Your task to perform on an android device: toggle priority inbox in the gmail app Image 0: 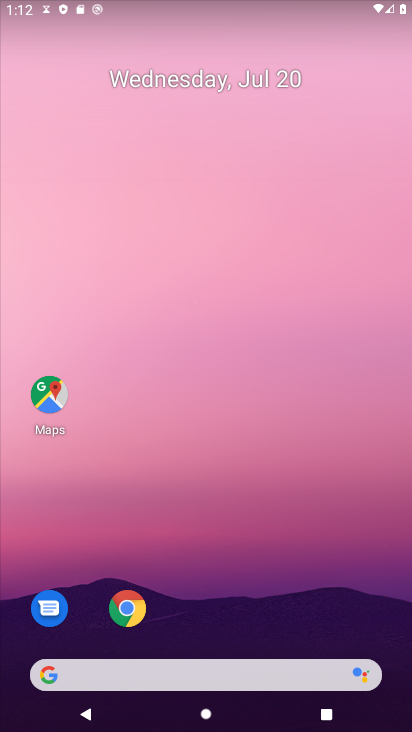
Step 0: drag from (231, 675) to (207, 128)
Your task to perform on an android device: toggle priority inbox in the gmail app Image 1: 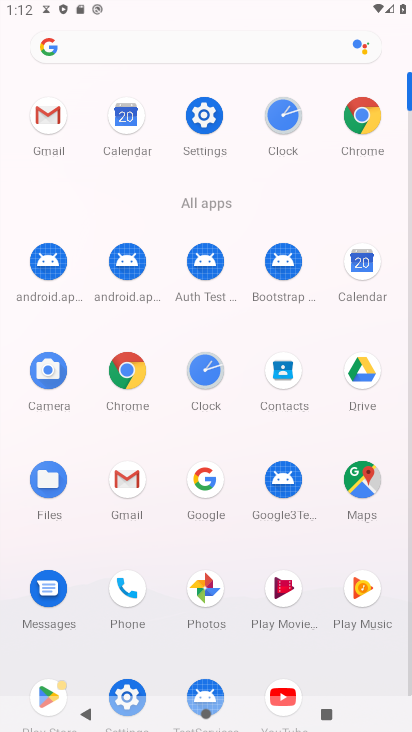
Step 1: click (128, 477)
Your task to perform on an android device: toggle priority inbox in the gmail app Image 2: 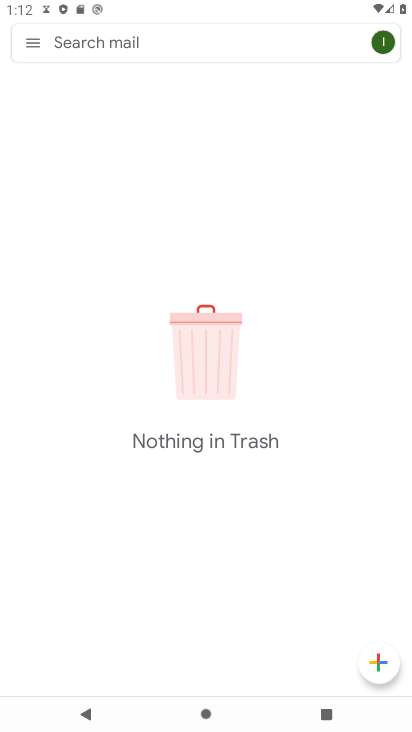
Step 2: click (33, 41)
Your task to perform on an android device: toggle priority inbox in the gmail app Image 3: 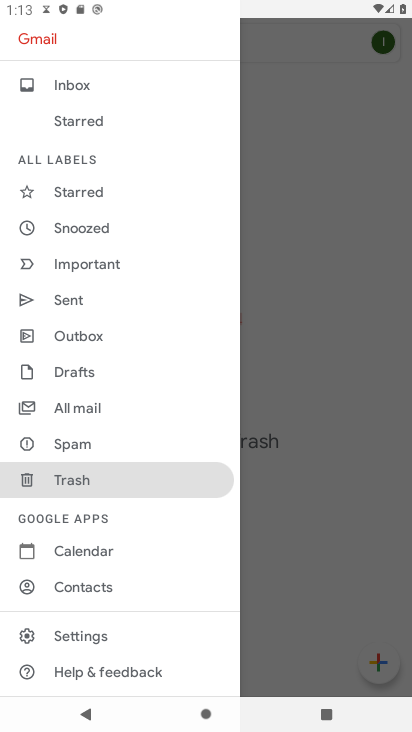
Step 3: click (83, 637)
Your task to perform on an android device: toggle priority inbox in the gmail app Image 4: 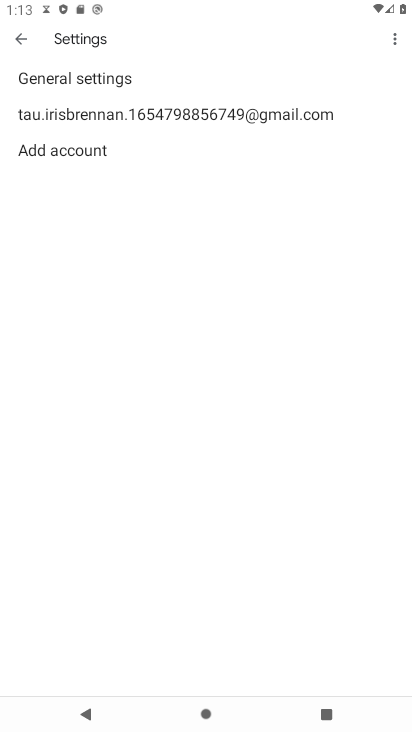
Step 4: click (198, 112)
Your task to perform on an android device: toggle priority inbox in the gmail app Image 5: 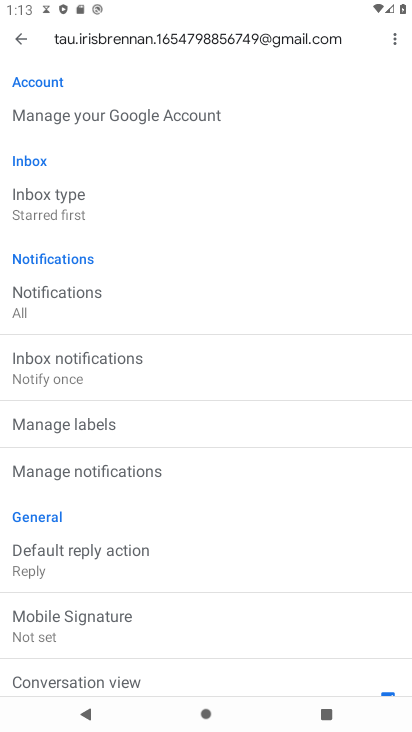
Step 5: click (75, 202)
Your task to perform on an android device: toggle priority inbox in the gmail app Image 6: 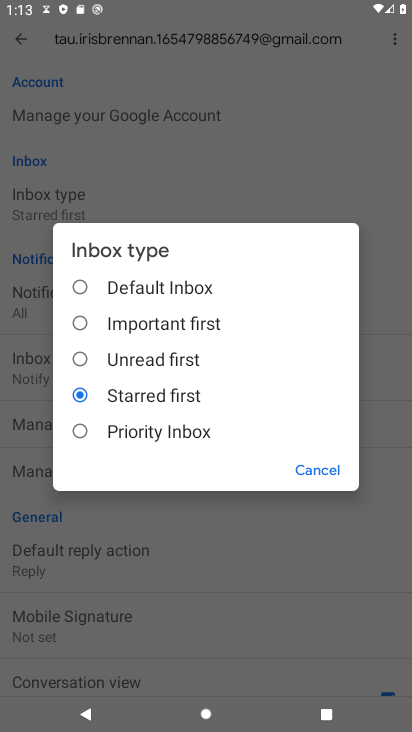
Step 6: click (82, 433)
Your task to perform on an android device: toggle priority inbox in the gmail app Image 7: 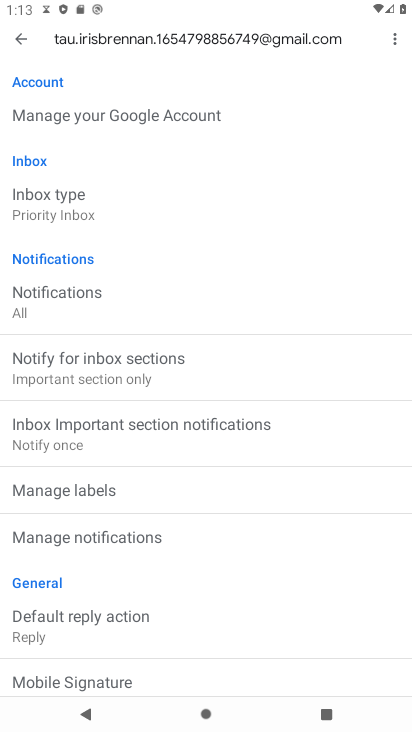
Step 7: task complete